Your task to perform on an android device: check out phone information Image 0: 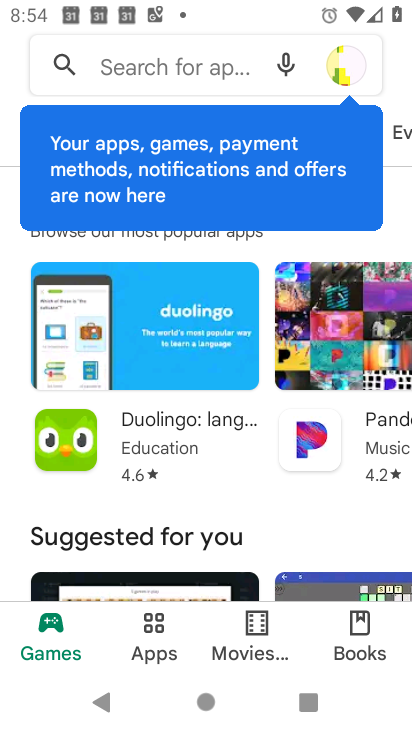
Step 0: press home button
Your task to perform on an android device: check out phone information Image 1: 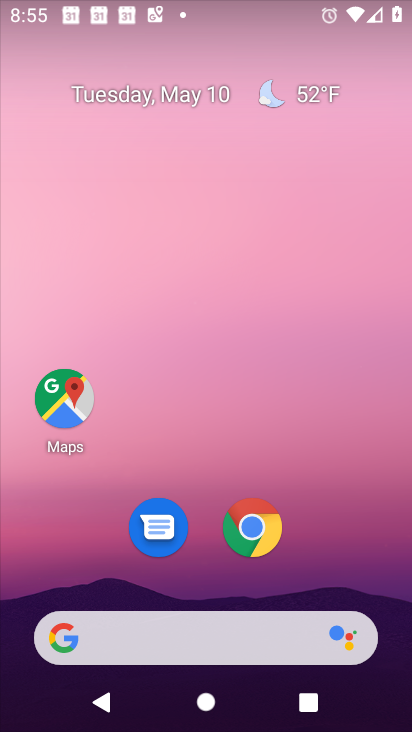
Step 1: drag from (300, 546) to (162, 112)
Your task to perform on an android device: check out phone information Image 2: 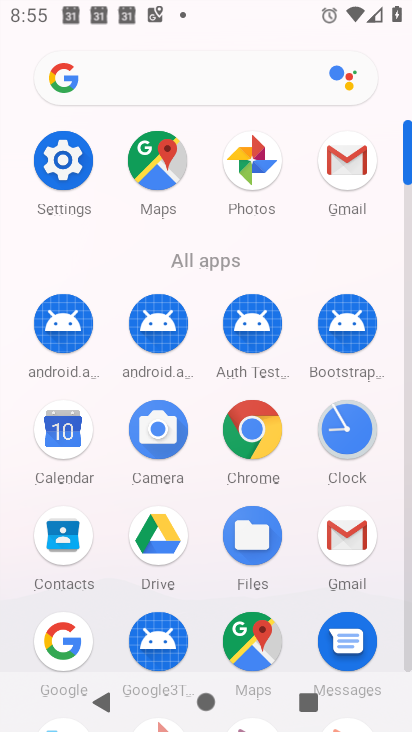
Step 2: drag from (204, 588) to (203, 361)
Your task to perform on an android device: check out phone information Image 3: 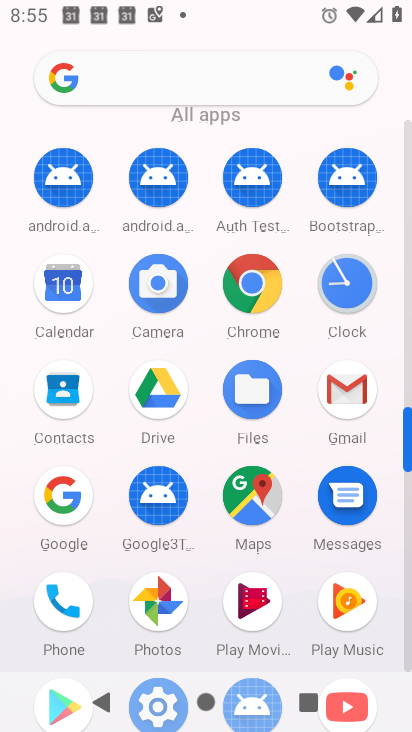
Step 3: click (67, 600)
Your task to perform on an android device: check out phone information Image 4: 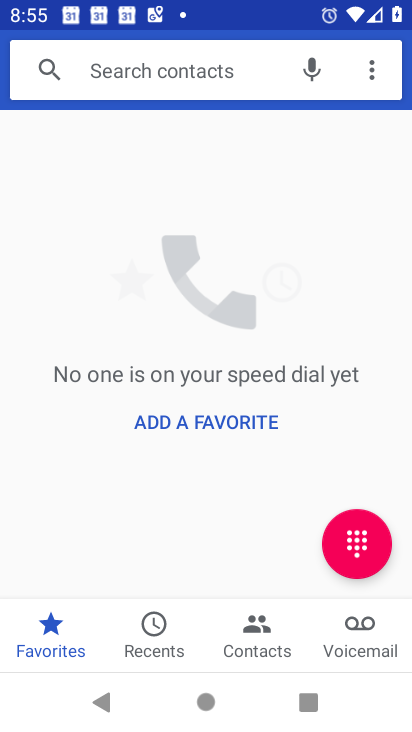
Step 4: click (370, 71)
Your task to perform on an android device: check out phone information Image 5: 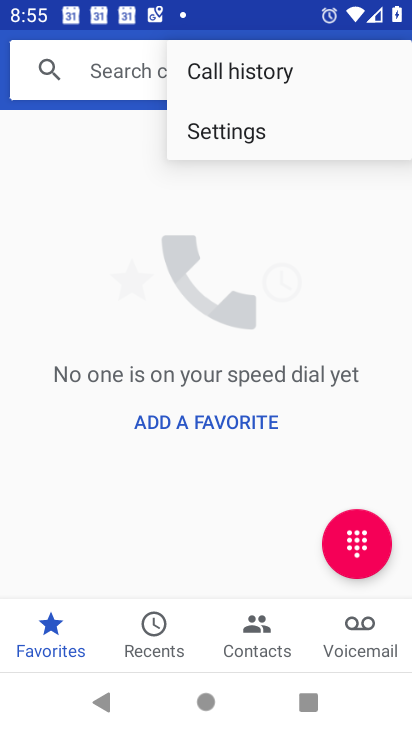
Step 5: click (236, 129)
Your task to perform on an android device: check out phone information Image 6: 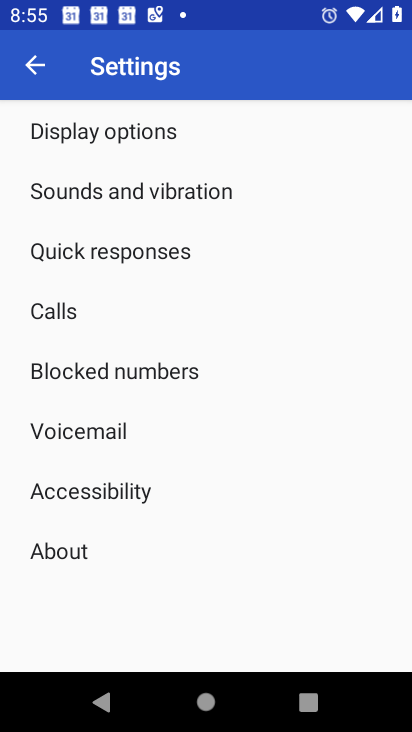
Step 6: click (35, 546)
Your task to perform on an android device: check out phone information Image 7: 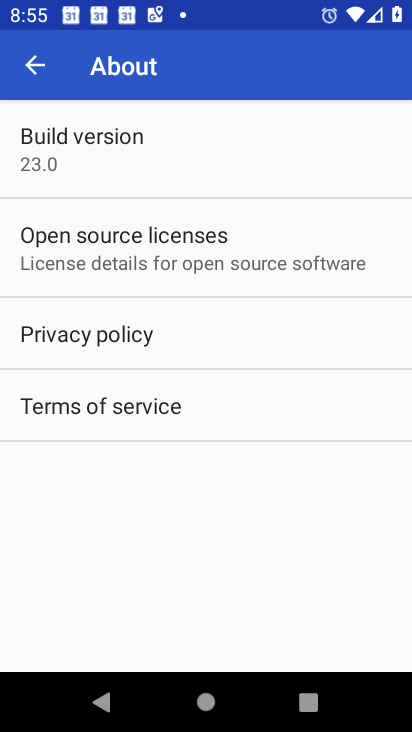
Step 7: task complete